Your task to perform on an android device: Go to network settings Image 0: 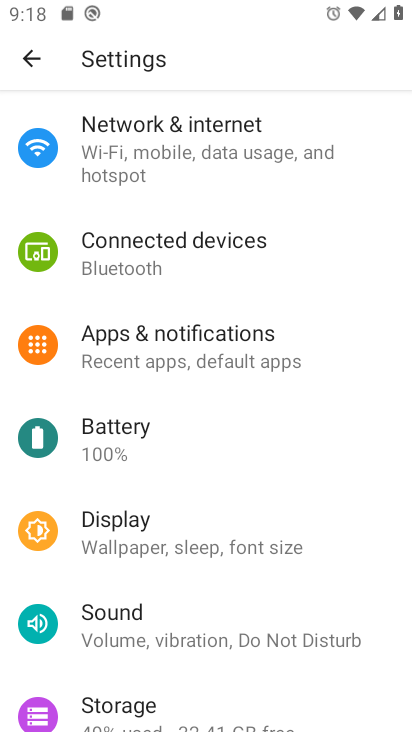
Step 0: click (210, 144)
Your task to perform on an android device: Go to network settings Image 1: 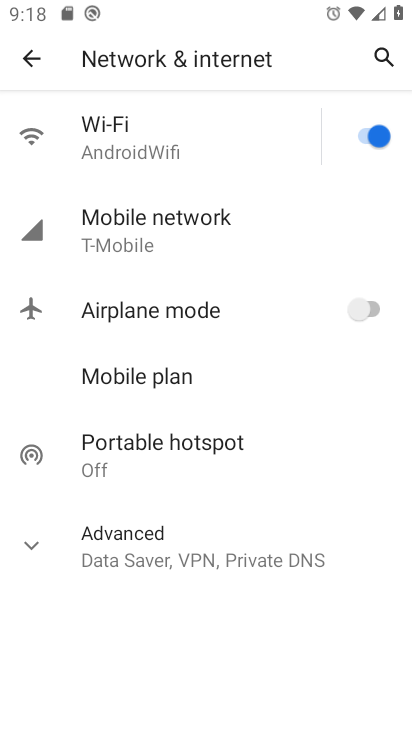
Step 1: task complete